Your task to perform on an android device: Open Youtube and go to "Your channel" Image 0: 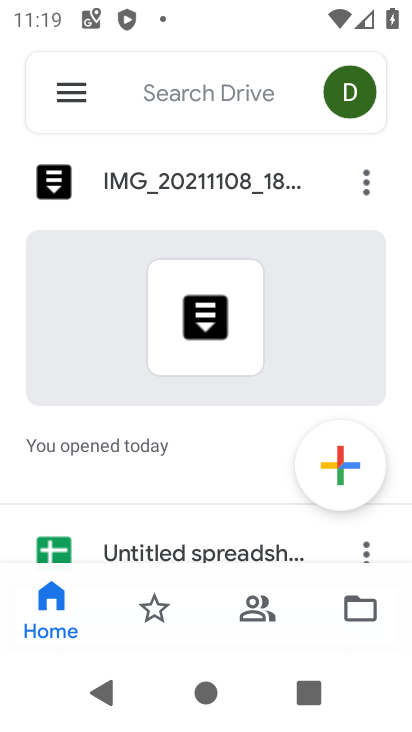
Step 0: press home button
Your task to perform on an android device: Open Youtube and go to "Your channel" Image 1: 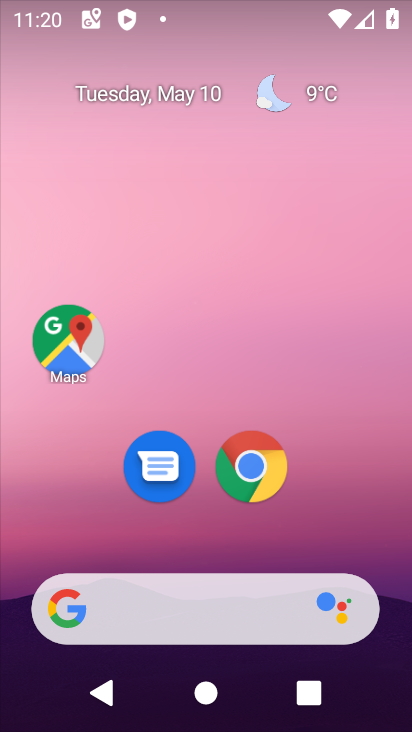
Step 1: drag from (296, 526) to (321, 8)
Your task to perform on an android device: Open Youtube and go to "Your channel" Image 2: 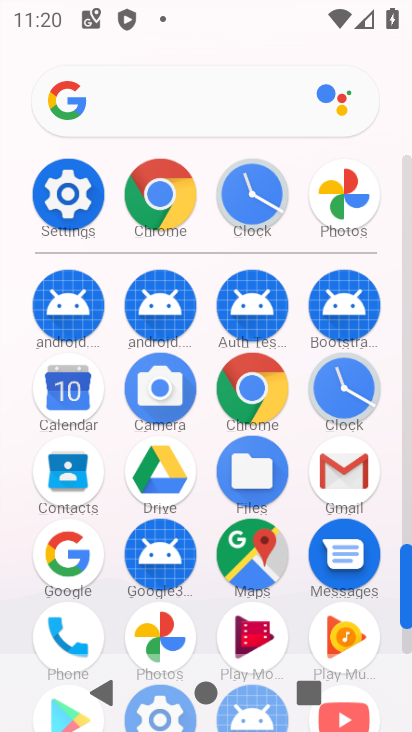
Step 2: drag from (192, 595) to (245, 207)
Your task to perform on an android device: Open Youtube and go to "Your channel" Image 3: 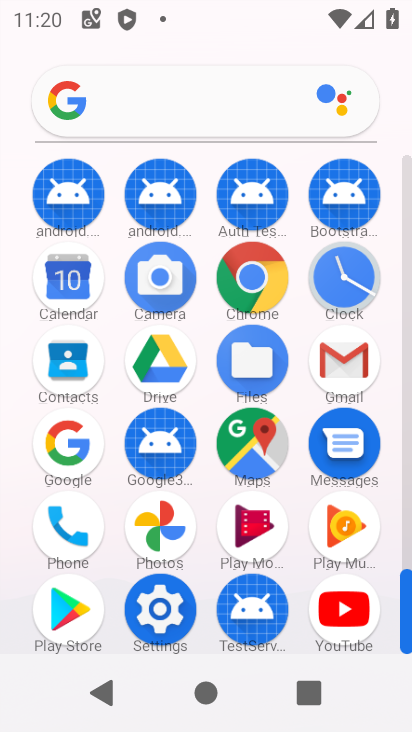
Step 3: click (320, 613)
Your task to perform on an android device: Open Youtube and go to "Your channel" Image 4: 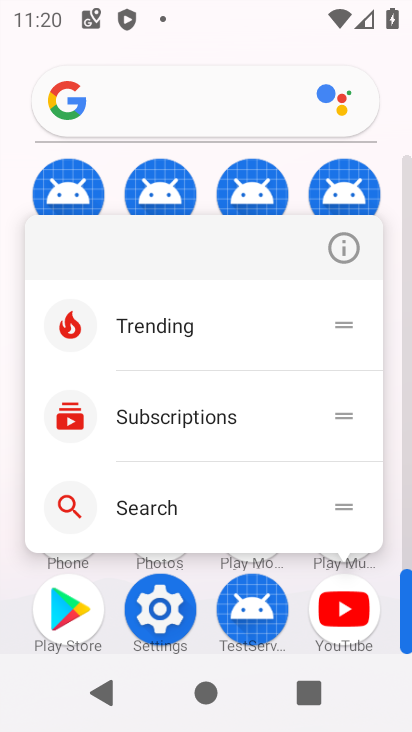
Step 4: click (324, 603)
Your task to perform on an android device: Open Youtube and go to "Your channel" Image 5: 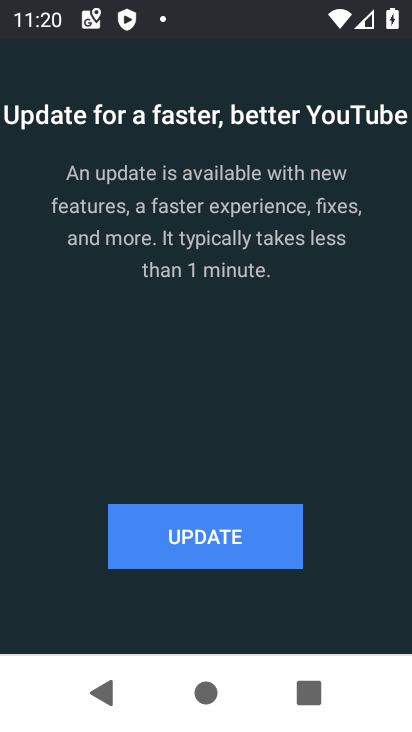
Step 5: click (182, 539)
Your task to perform on an android device: Open Youtube and go to "Your channel" Image 6: 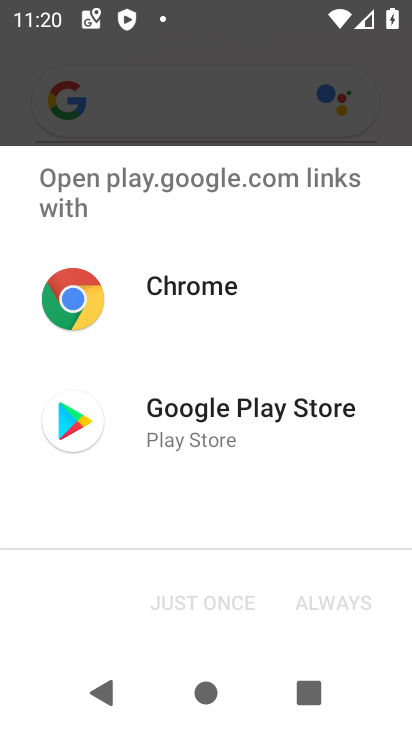
Step 6: click (184, 443)
Your task to perform on an android device: Open Youtube and go to "Your channel" Image 7: 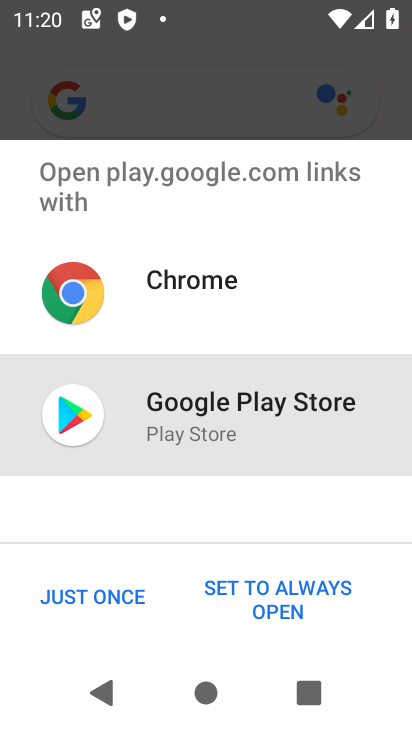
Step 7: click (106, 597)
Your task to perform on an android device: Open Youtube and go to "Your channel" Image 8: 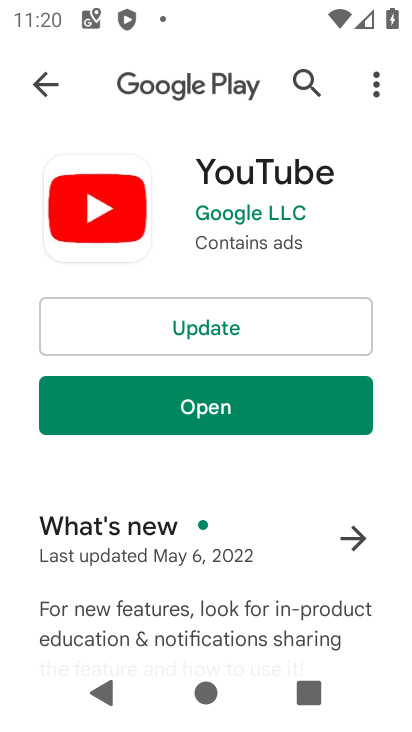
Step 8: click (254, 322)
Your task to perform on an android device: Open Youtube and go to "Your channel" Image 9: 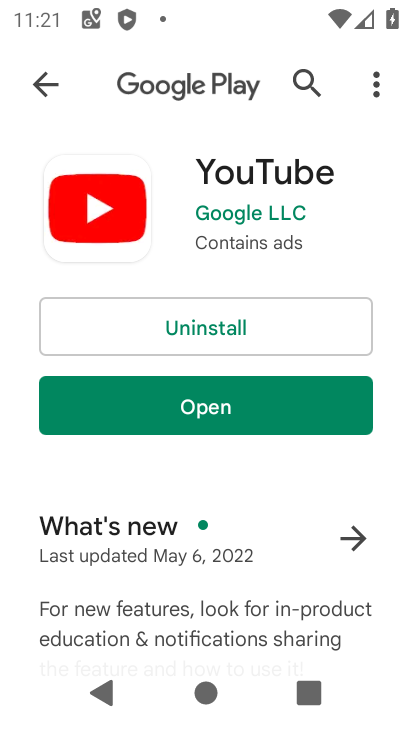
Step 9: click (214, 414)
Your task to perform on an android device: Open Youtube and go to "Your channel" Image 10: 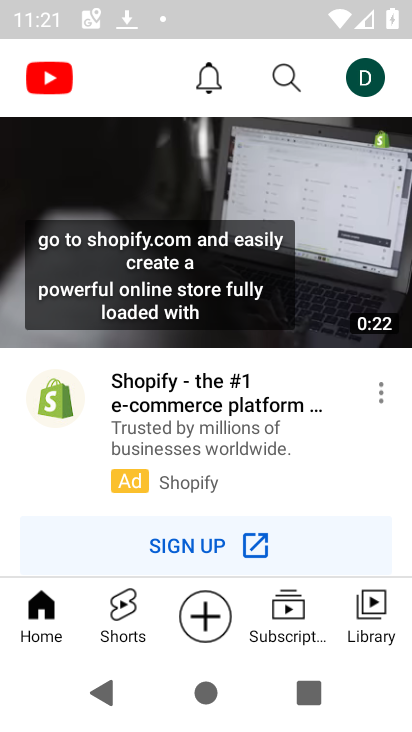
Step 10: click (352, 73)
Your task to perform on an android device: Open Youtube and go to "Your channel" Image 11: 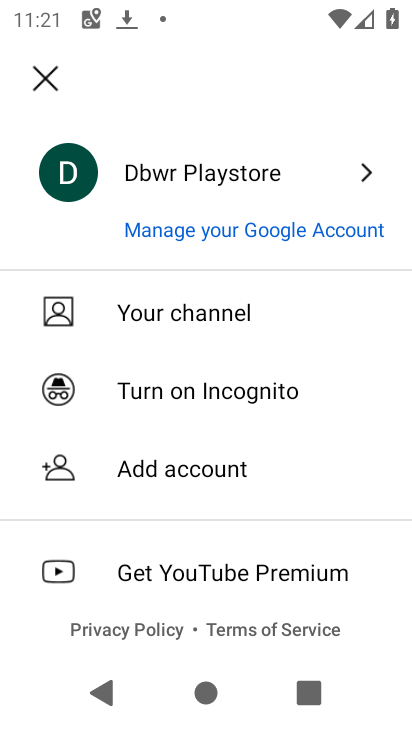
Step 11: click (123, 318)
Your task to perform on an android device: Open Youtube and go to "Your channel" Image 12: 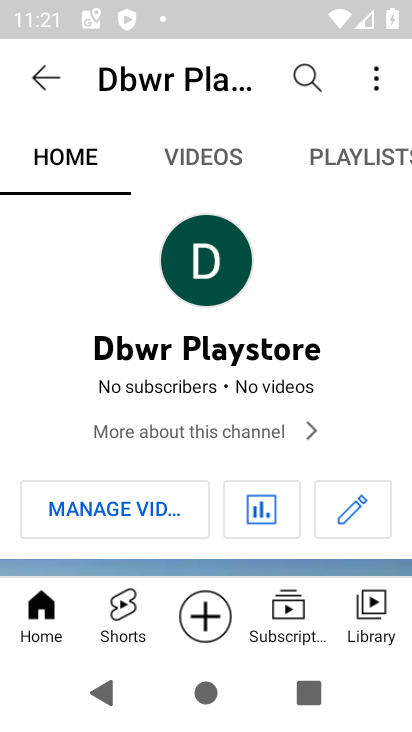
Step 12: task complete